Your task to perform on an android device: Go to ESPN.com Image 0: 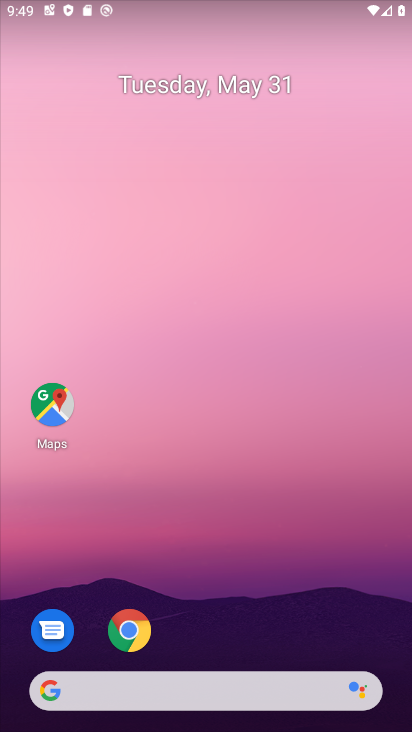
Step 0: drag from (194, 675) to (226, 200)
Your task to perform on an android device: Go to ESPN.com Image 1: 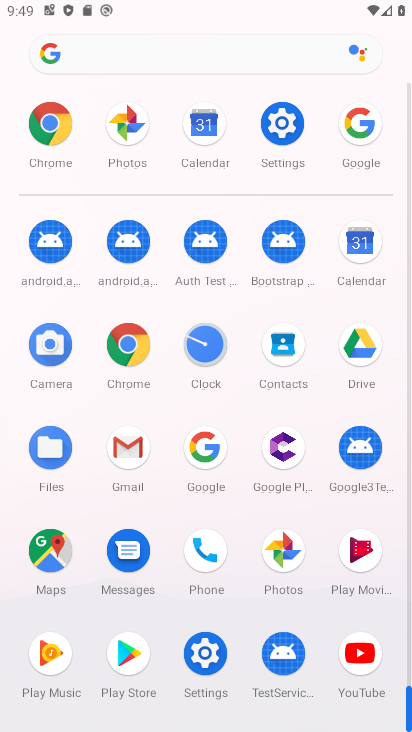
Step 1: click (143, 359)
Your task to perform on an android device: Go to ESPN.com Image 2: 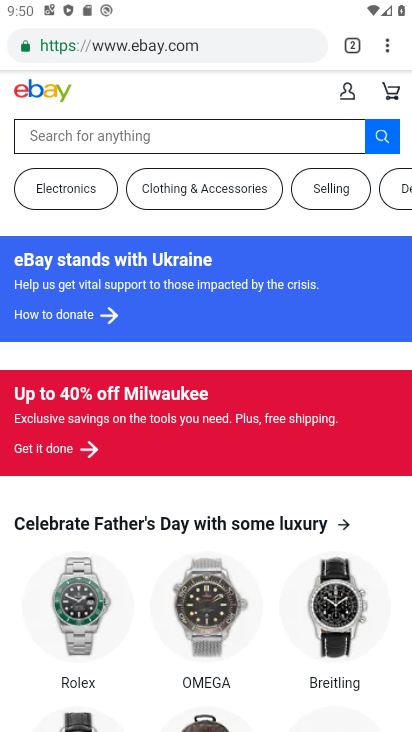
Step 2: click (152, 43)
Your task to perform on an android device: Go to ESPN.com Image 3: 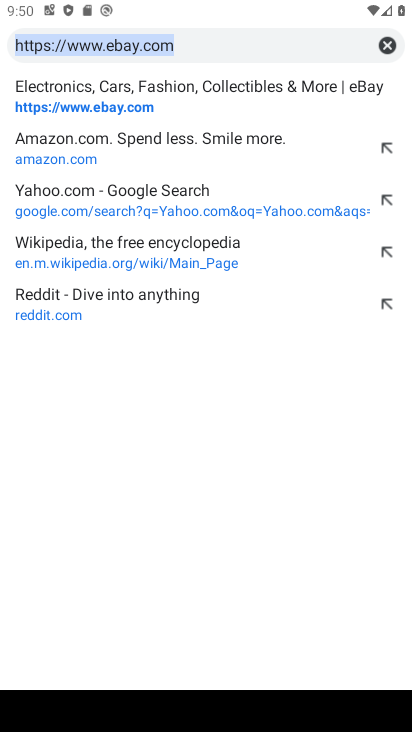
Step 3: type "espn"
Your task to perform on an android device: Go to ESPN.com Image 4: 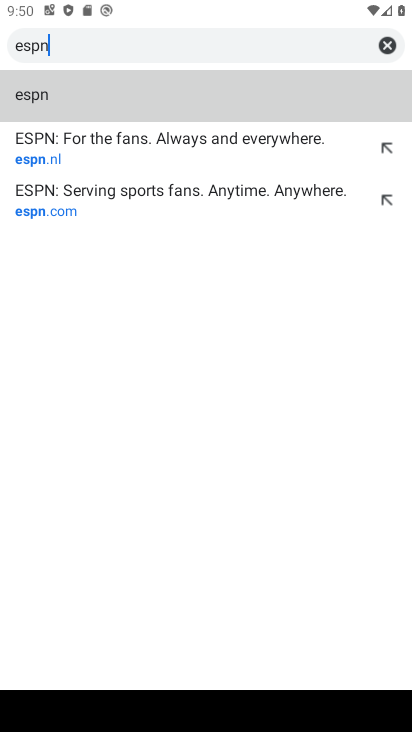
Step 4: click (151, 212)
Your task to perform on an android device: Go to ESPN.com Image 5: 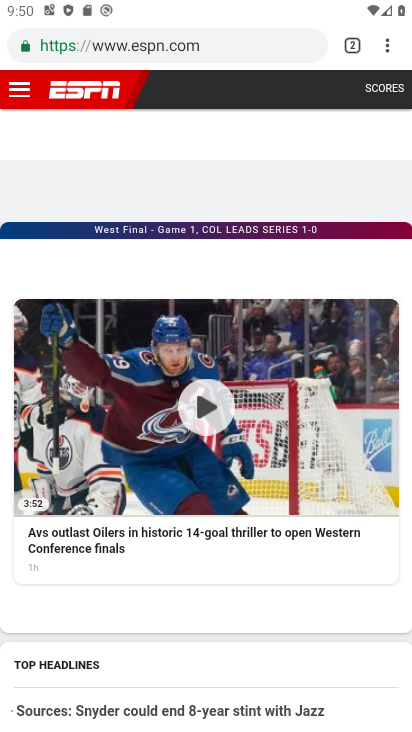
Step 5: task complete